Your task to perform on an android device: set default search engine in the chrome app Image 0: 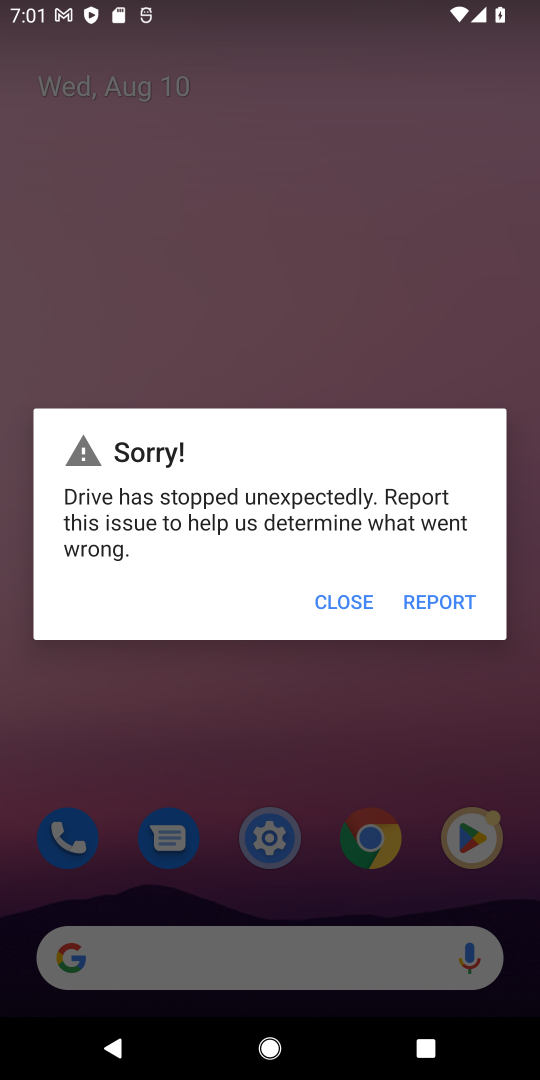
Step 0: press home button
Your task to perform on an android device: set default search engine in the chrome app Image 1: 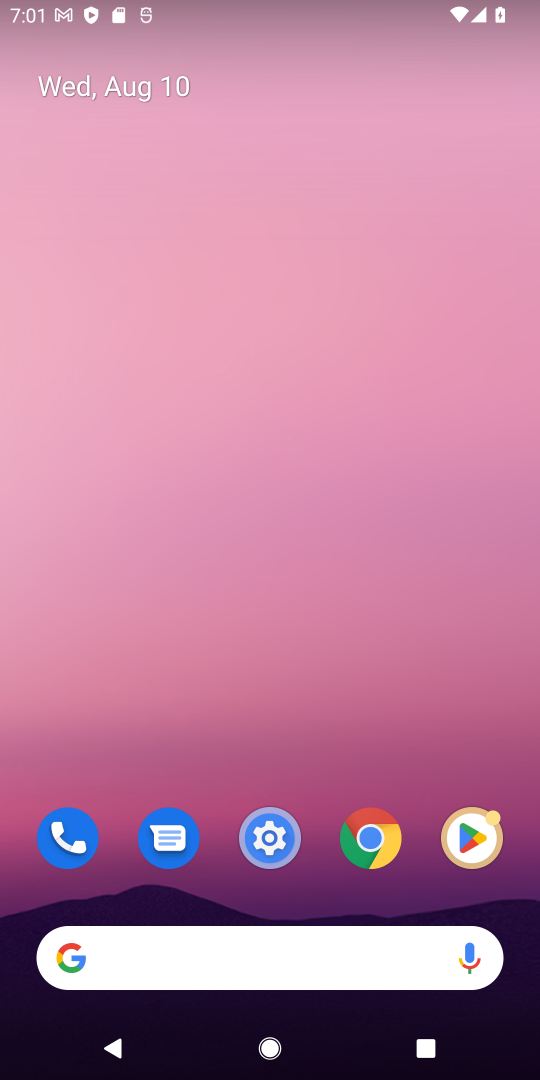
Step 1: drag from (322, 783) to (319, 69)
Your task to perform on an android device: set default search engine in the chrome app Image 2: 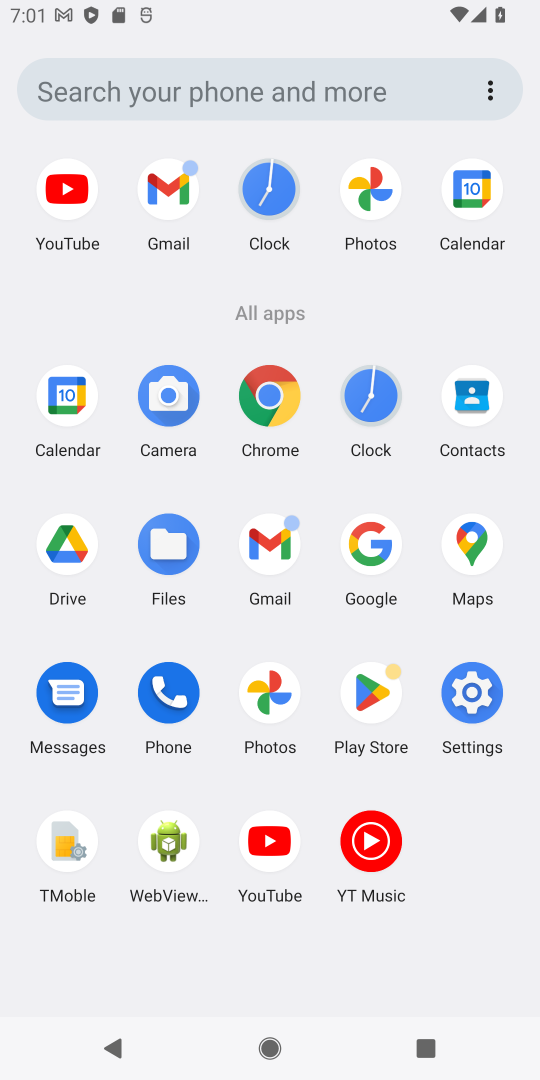
Step 2: click (274, 395)
Your task to perform on an android device: set default search engine in the chrome app Image 3: 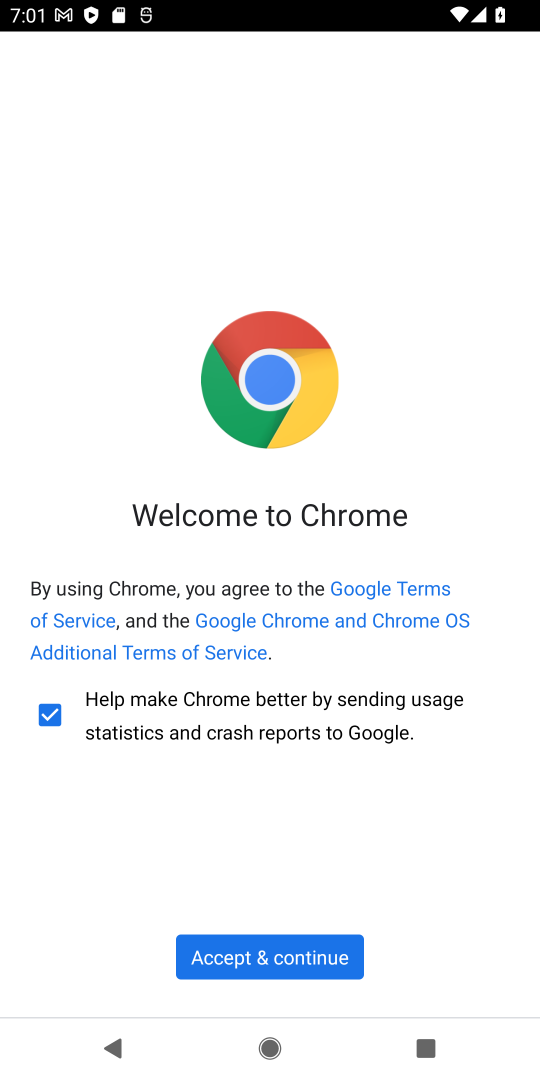
Step 3: click (288, 956)
Your task to perform on an android device: set default search engine in the chrome app Image 4: 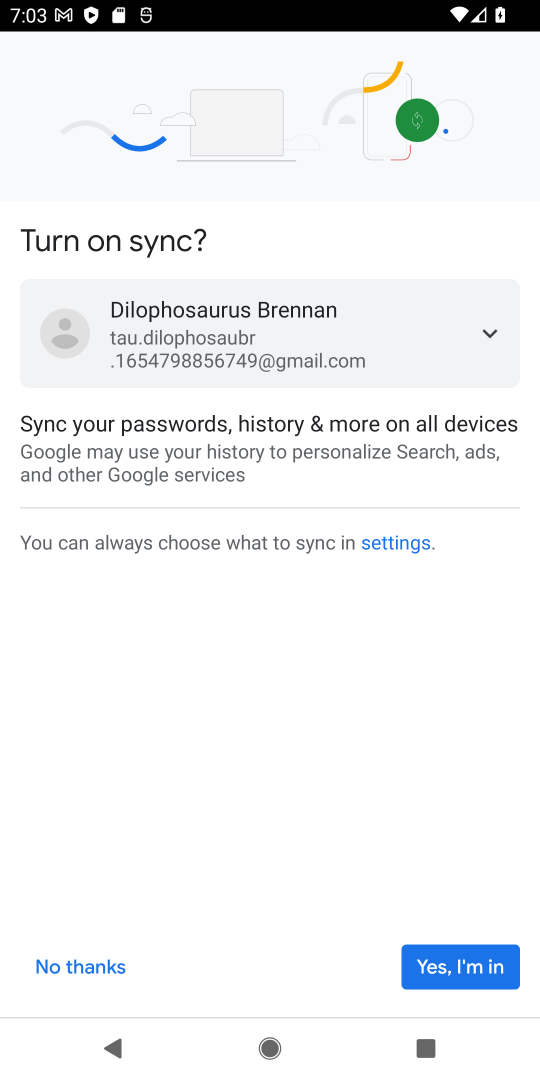
Step 4: click (474, 976)
Your task to perform on an android device: set default search engine in the chrome app Image 5: 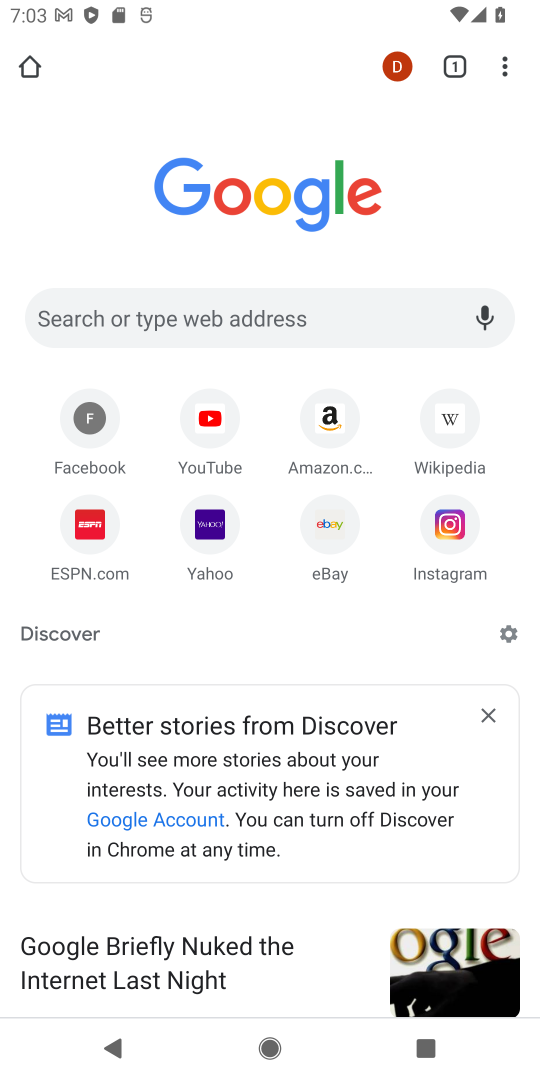
Step 5: drag from (507, 63) to (281, 582)
Your task to perform on an android device: set default search engine in the chrome app Image 6: 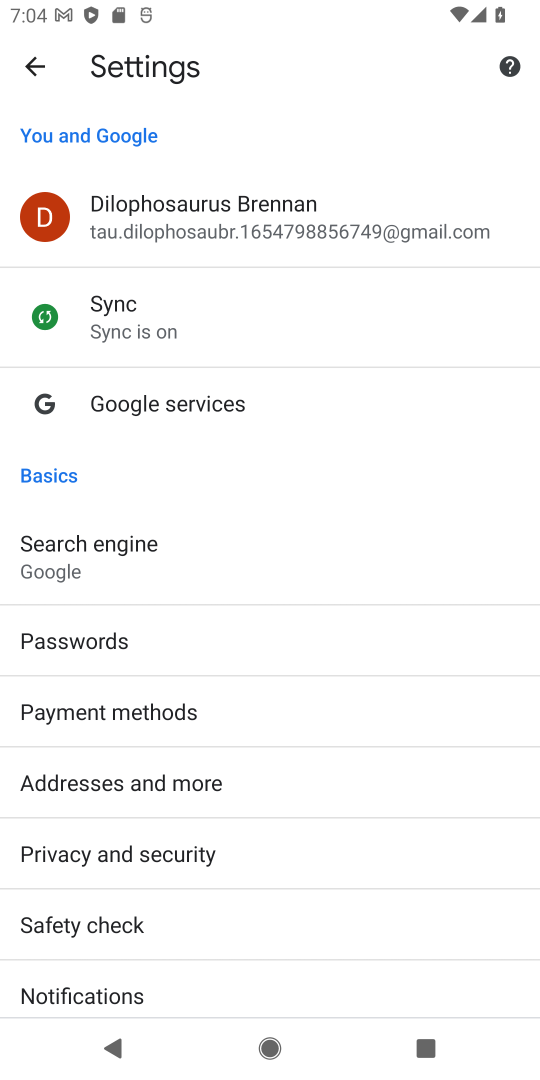
Step 6: click (111, 533)
Your task to perform on an android device: set default search engine in the chrome app Image 7: 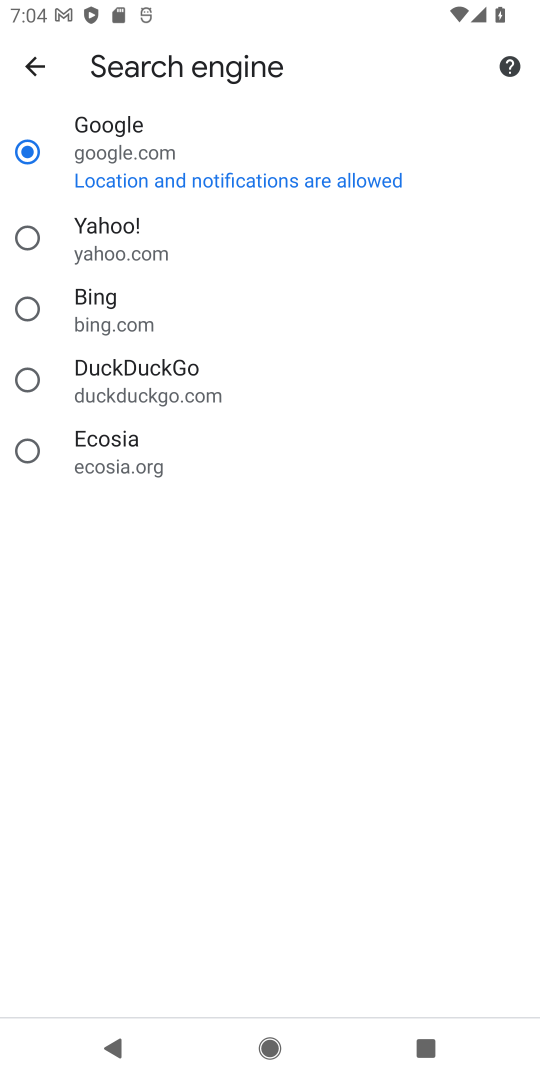
Step 7: task complete